Your task to perform on an android device: View the shopping cart on ebay. Search for razer deathadder on ebay, select the first entry, add it to the cart, then select checkout. Image 0: 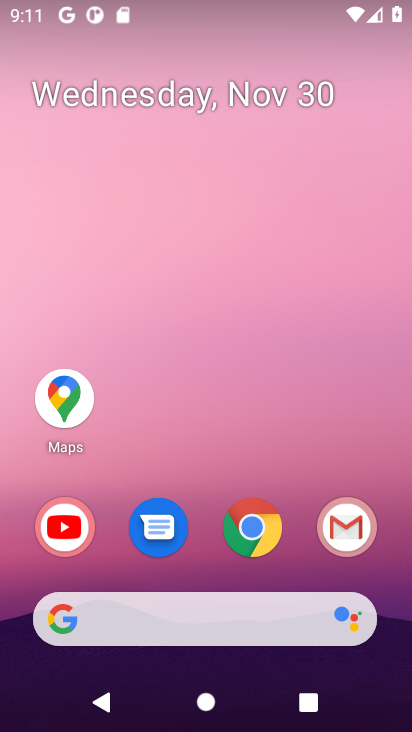
Step 0: click (261, 531)
Your task to perform on an android device: View the shopping cart on ebay. Search for razer deathadder on ebay, select the first entry, add it to the cart, then select checkout. Image 1: 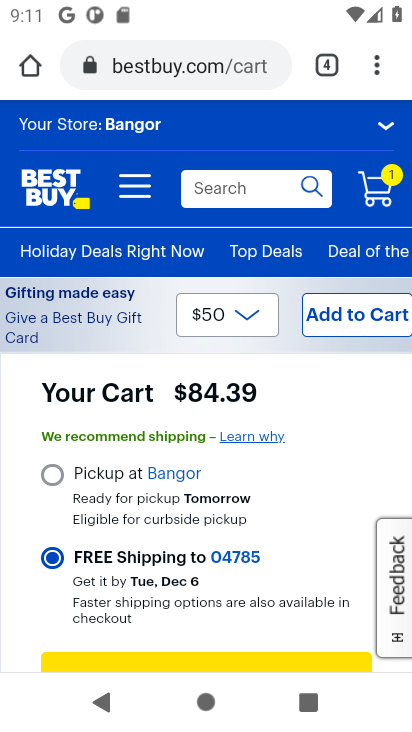
Step 1: click (240, 67)
Your task to perform on an android device: View the shopping cart on ebay. Search for razer deathadder on ebay, select the first entry, add it to the cart, then select checkout. Image 2: 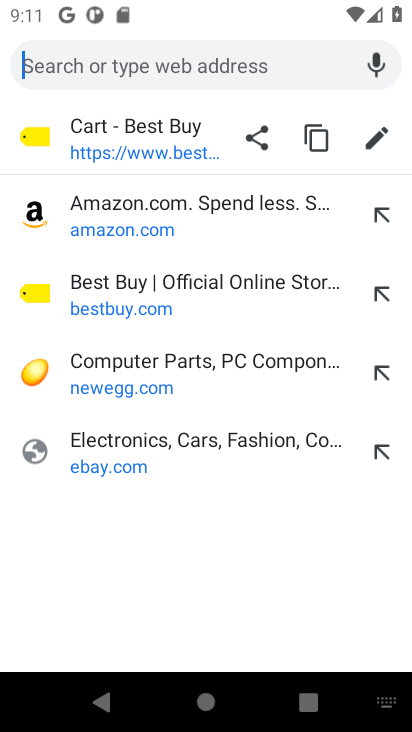
Step 2: click (137, 444)
Your task to perform on an android device: View the shopping cart on ebay. Search for razer deathadder on ebay, select the first entry, add it to the cart, then select checkout. Image 3: 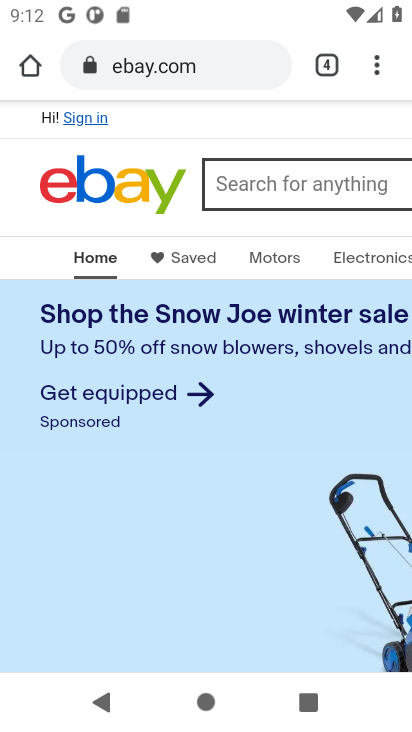
Step 3: drag from (367, 127) to (235, 200)
Your task to perform on an android device: View the shopping cart on ebay. Search for razer deathadder on ebay, select the first entry, add it to the cart, then select checkout. Image 4: 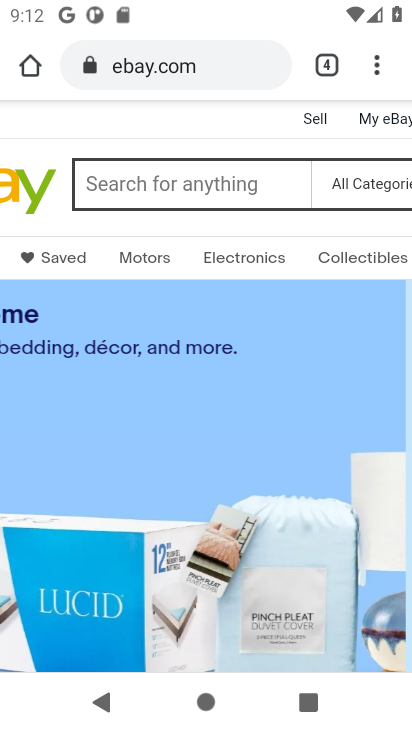
Step 4: click (167, 188)
Your task to perform on an android device: View the shopping cart on ebay. Search for razer deathadder on ebay, select the first entry, add it to the cart, then select checkout. Image 5: 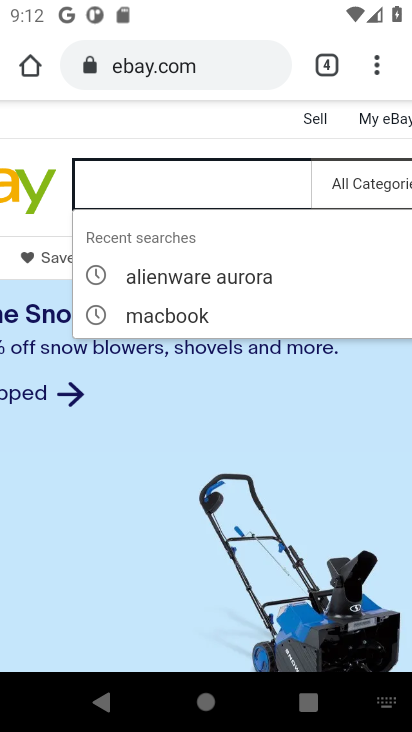
Step 5: type "razer deathadder"
Your task to perform on an android device: View the shopping cart on ebay. Search for razer deathadder on ebay, select the first entry, add it to the cart, then select checkout. Image 6: 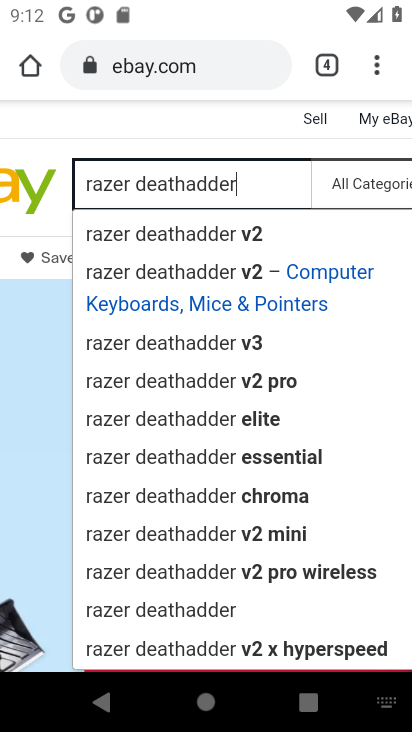
Step 6: press enter
Your task to perform on an android device: View the shopping cart on ebay. Search for razer deathadder on ebay, select the first entry, add it to the cart, then select checkout. Image 7: 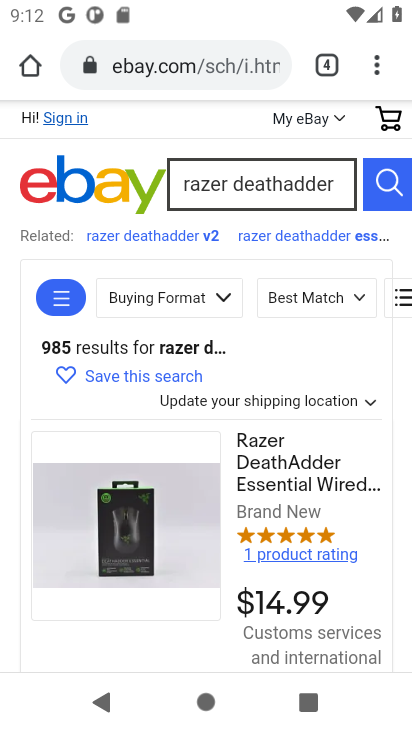
Step 7: click (153, 534)
Your task to perform on an android device: View the shopping cart on ebay. Search for razer deathadder on ebay, select the first entry, add it to the cart, then select checkout. Image 8: 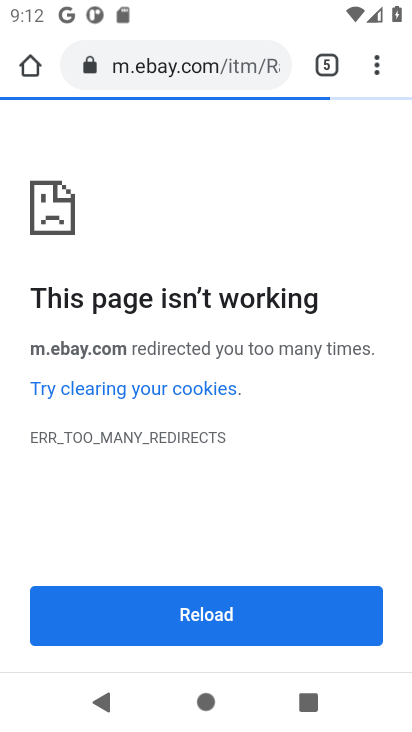
Step 8: press back button
Your task to perform on an android device: View the shopping cart on ebay. Search for razer deathadder on ebay, select the first entry, add it to the cart, then select checkout. Image 9: 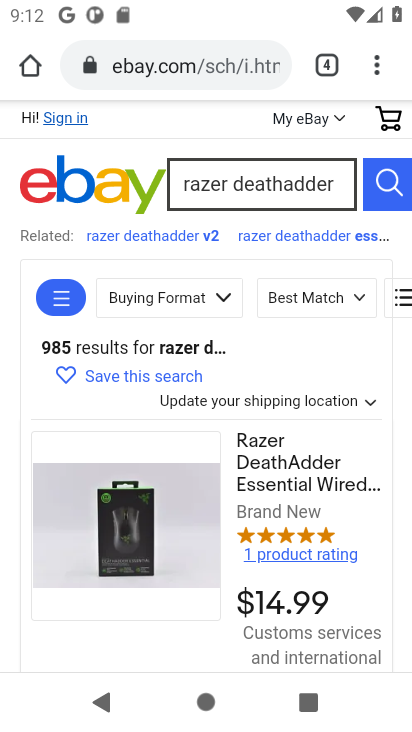
Step 9: drag from (353, 593) to (384, 284)
Your task to perform on an android device: View the shopping cart on ebay. Search for razer deathadder on ebay, select the first entry, add it to the cart, then select checkout. Image 10: 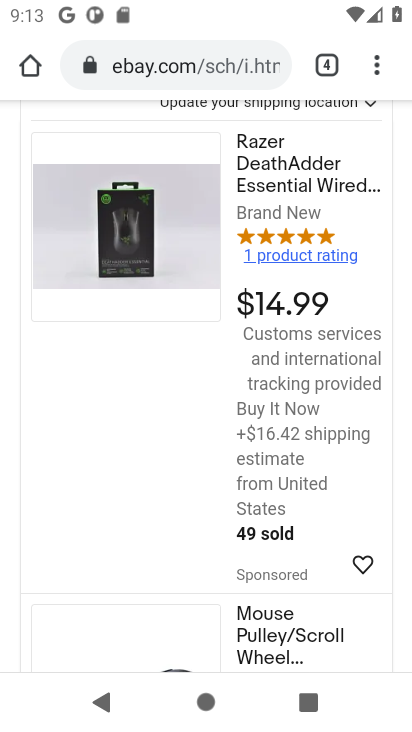
Step 10: drag from (130, 505) to (225, 179)
Your task to perform on an android device: View the shopping cart on ebay. Search for razer deathadder on ebay, select the first entry, add it to the cart, then select checkout. Image 11: 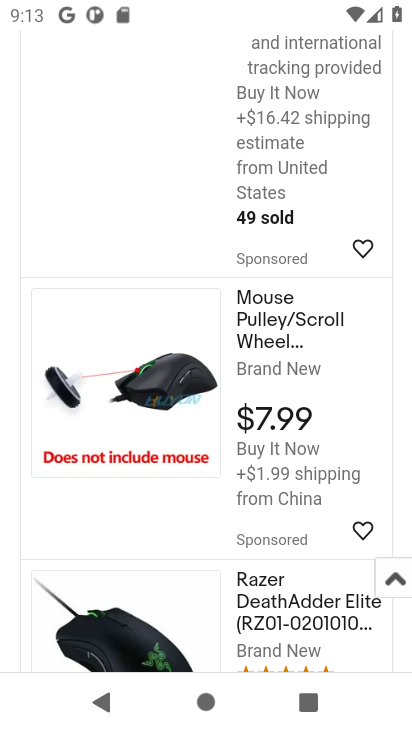
Step 11: drag from (163, 606) to (229, 321)
Your task to perform on an android device: View the shopping cart on ebay. Search for razer deathadder on ebay, select the first entry, add it to the cart, then select checkout. Image 12: 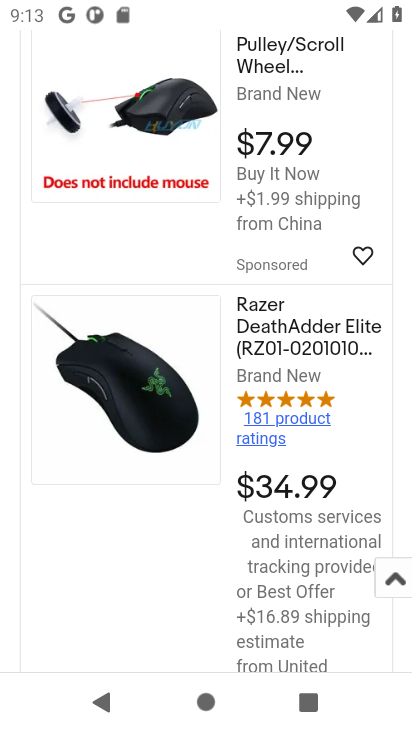
Step 12: click (155, 374)
Your task to perform on an android device: View the shopping cart on ebay. Search for razer deathadder on ebay, select the first entry, add it to the cart, then select checkout. Image 13: 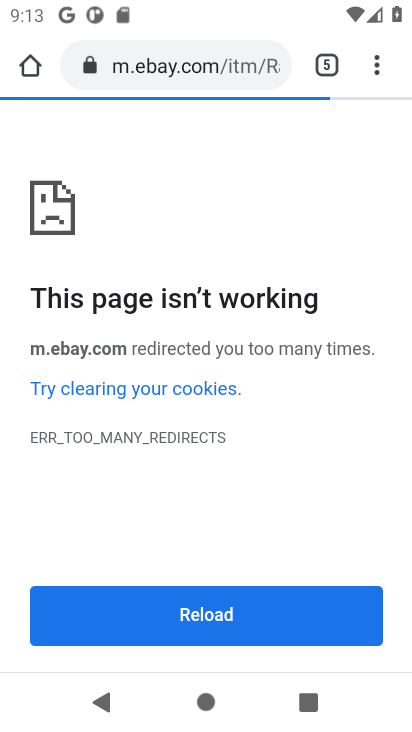
Step 13: task complete